Your task to perform on an android device: turn off sleep mode Image 0: 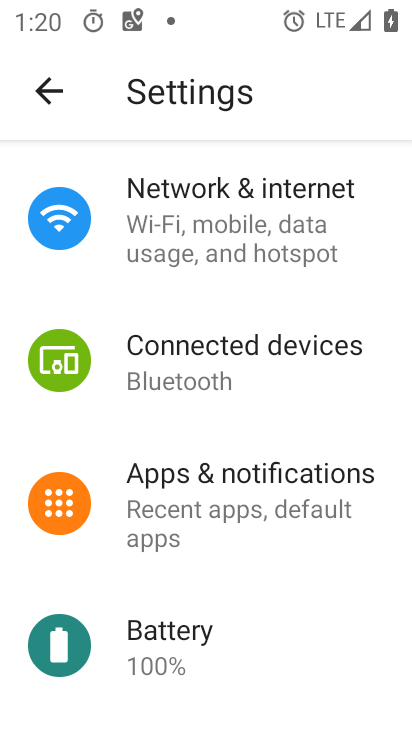
Step 0: press home button
Your task to perform on an android device: turn off sleep mode Image 1: 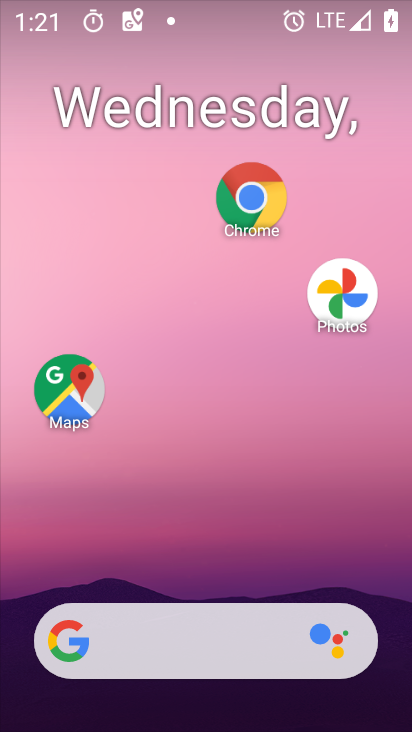
Step 1: drag from (289, 604) to (246, 180)
Your task to perform on an android device: turn off sleep mode Image 2: 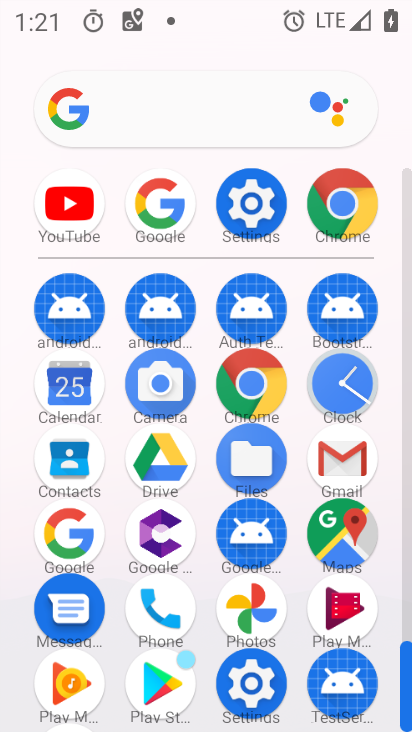
Step 2: click (244, 202)
Your task to perform on an android device: turn off sleep mode Image 3: 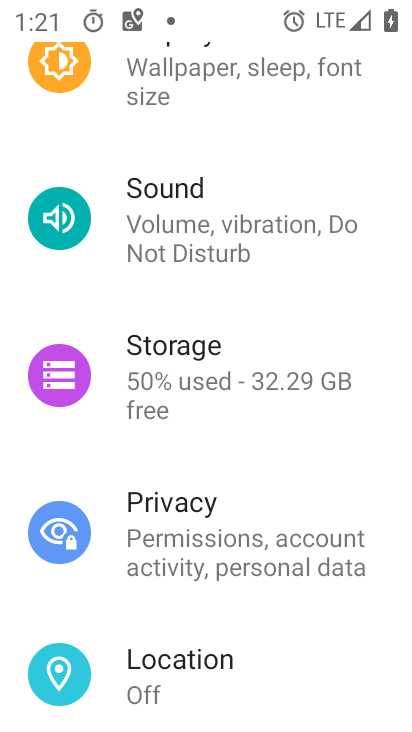
Step 3: drag from (241, 248) to (302, 534)
Your task to perform on an android device: turn off sleep mode Image 4: 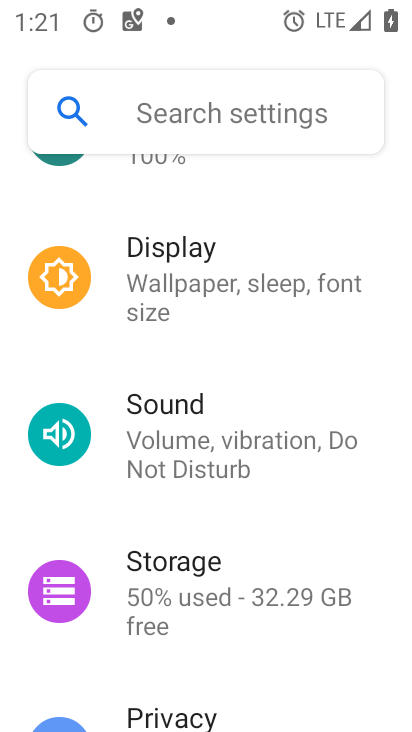
Step 4: click (222, 299)
Your task to perform on an android device: turn off sleep mode Image 5: 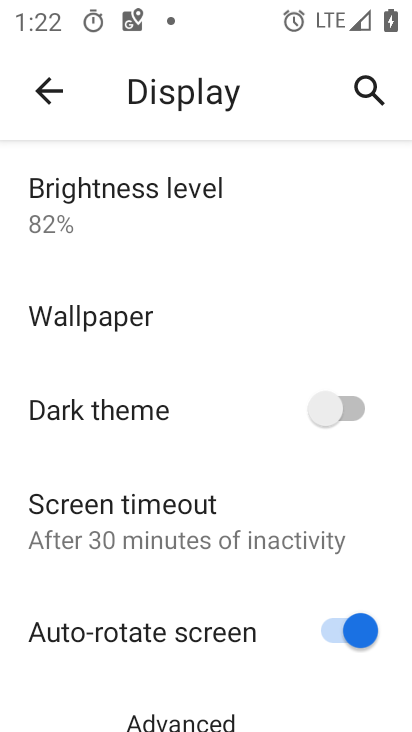
Step 5: drag from (271, 519) to (193, 86)
Your task to perform on an android device: turn off sleep mode Image 6: 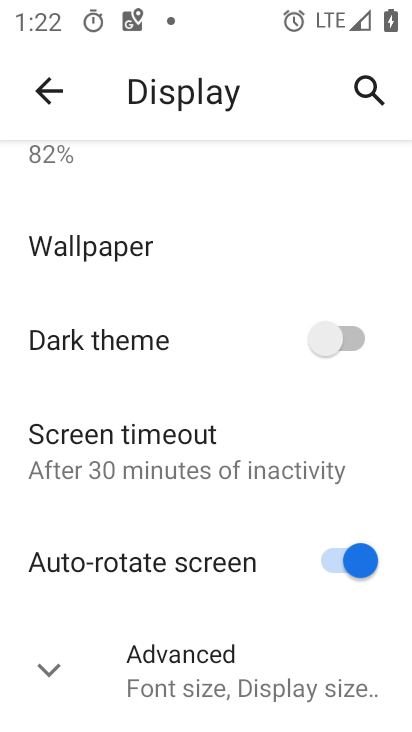
Step 6: click (284, 677)
Your task to perform on an android device: turn off sleep mode Image 7: 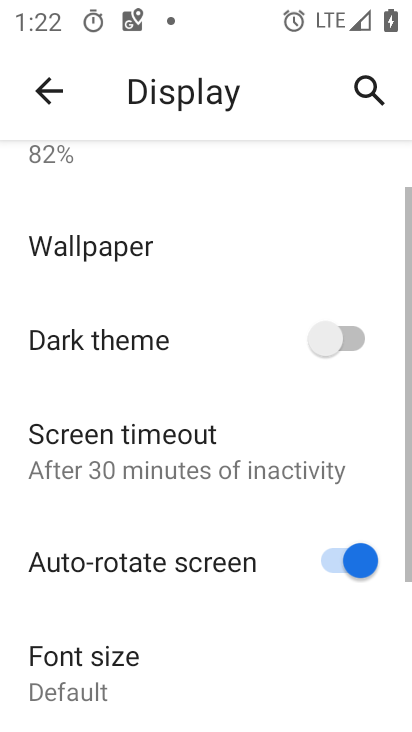
Step 7: task complete